Your task to perform on an android device: open app "Indeed Job Search" (install if not already installed), go to login, and select forgot password Image 0: 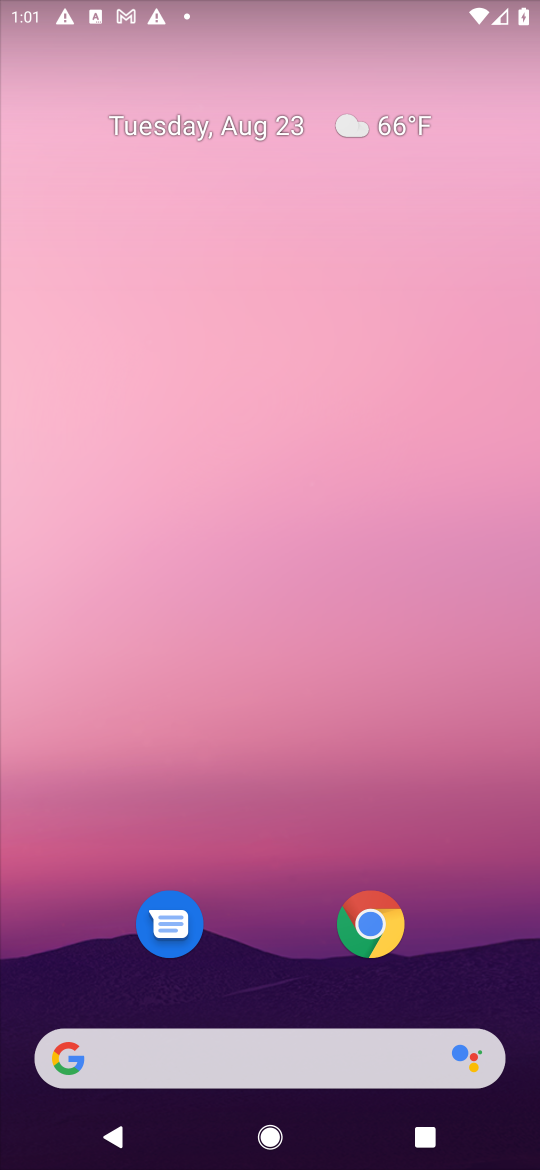
Step 0: press home button
Your task to perform on an android device: open app "Indeed Job Search" (install if not already installed), go to login, and select forgot password Image 1: 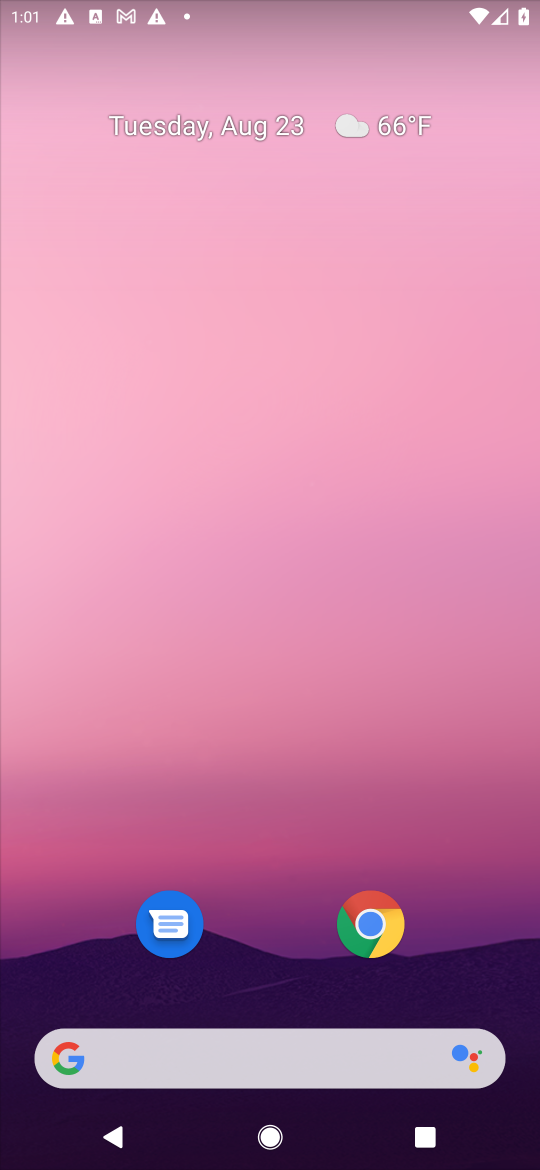
Step 1: drag from (472, 916) to (442, 165)
Your task to perform on an android device: open app "Indeed Job Search" (install if not already installed), go to login, and select forgot password Image 2: 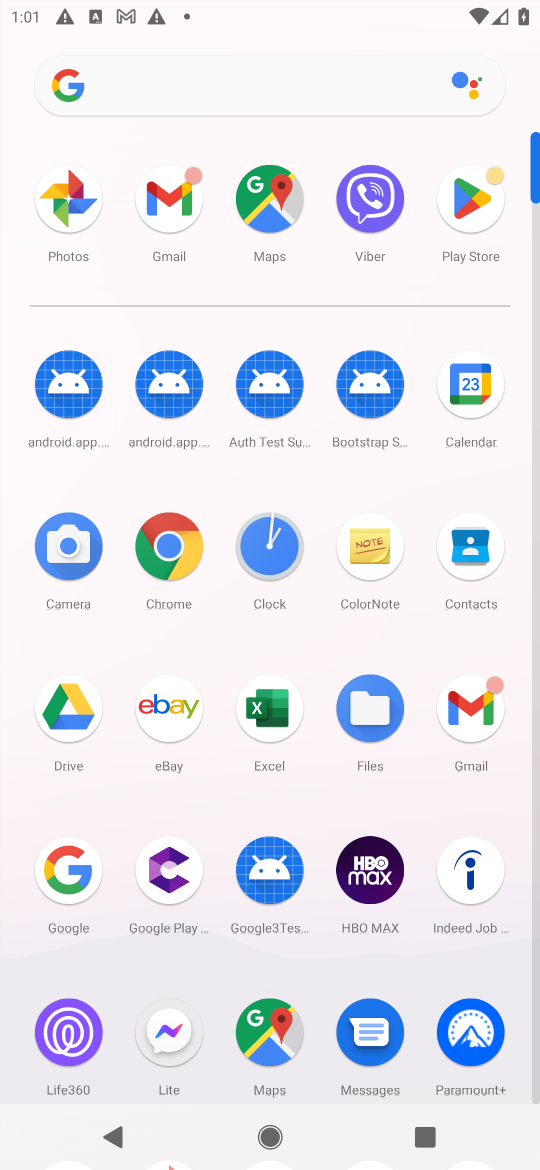
Step 2: click (468, 211)
Your task to perform on an android device: open app "Indeed Job Search" (install if not already installed), go to login, and select forgot password Image 3: 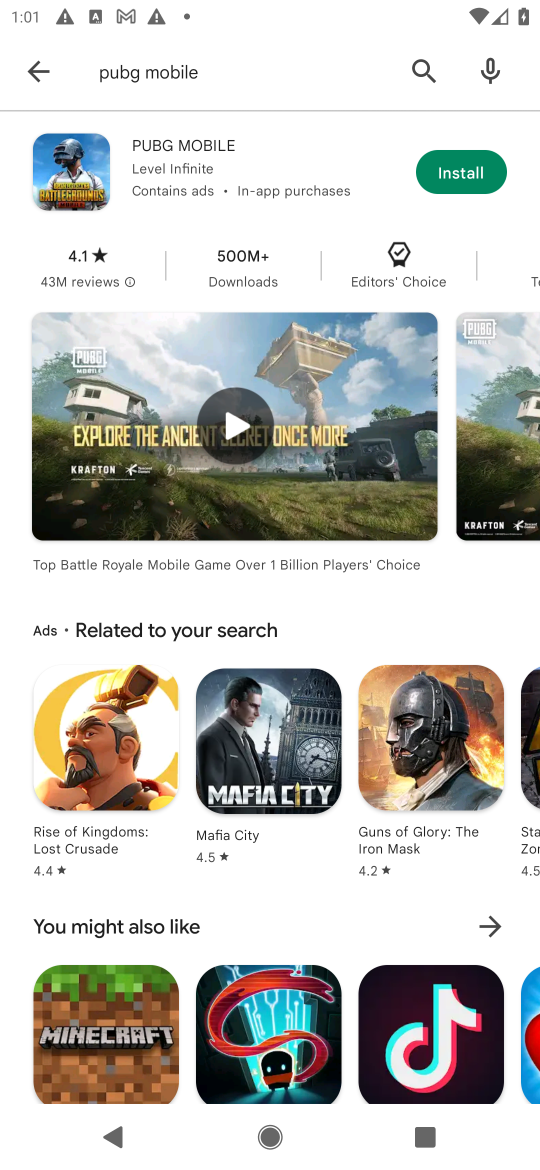
Step 3: press back button
Your task to perform on an android device: open app "Indeed Job Search" (install if not already installed), go to login, and select forgot password Image 4: 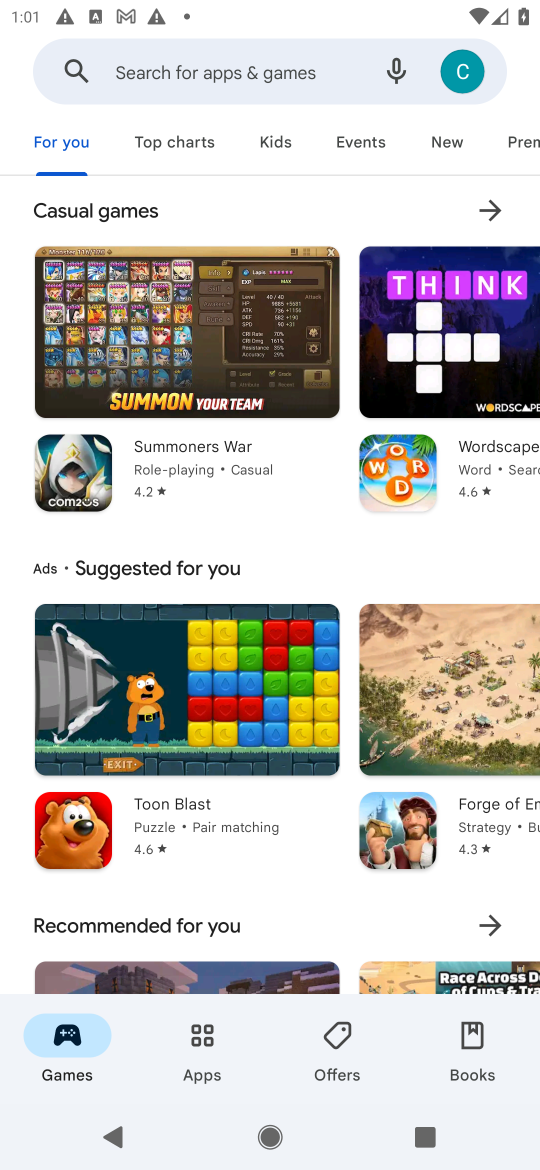
Step 4: click (208, 64)
Your task to perform on an android device: open app "Indeed Job Search" (install if not already installed), go to login, and select forgot password Image 5: 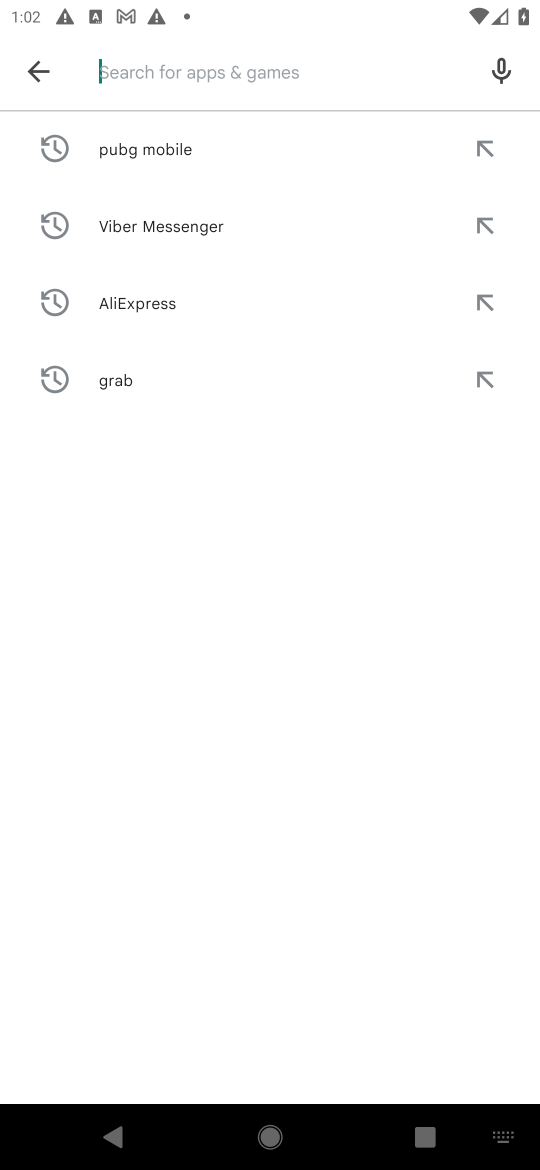
Step 5: type "Indeed Job Search"
Your task to perform on an android device: open app "Indeed Job Search" (install if not already installed), go to login, and select forgot password Image 6: 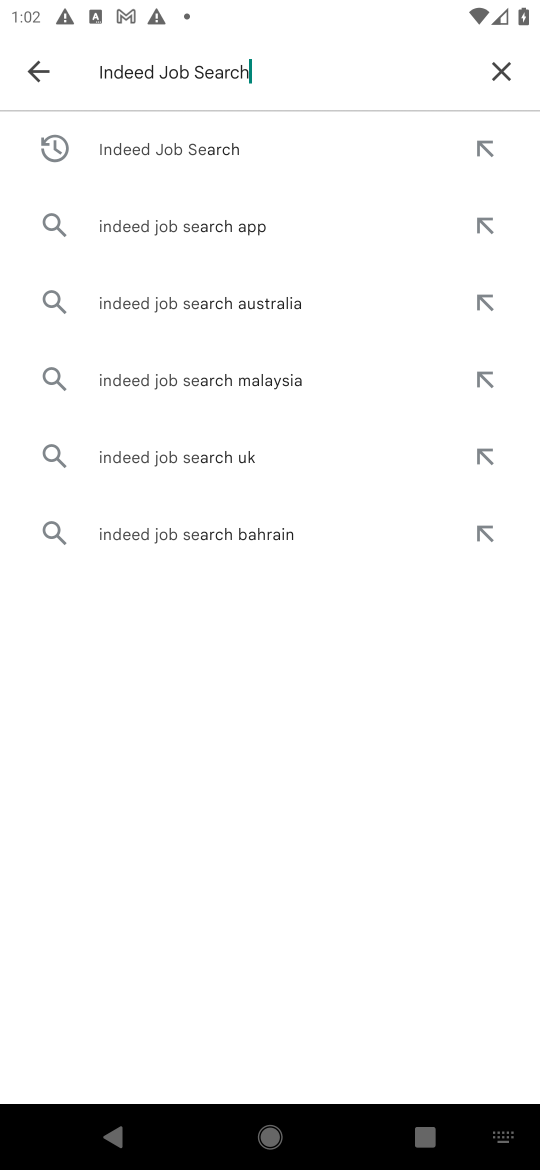
Step 6: press enter
Your task to perform on an android device: open app "Indeed Job Search" (install if not already installed), go to login, and select forgot password Image 7: 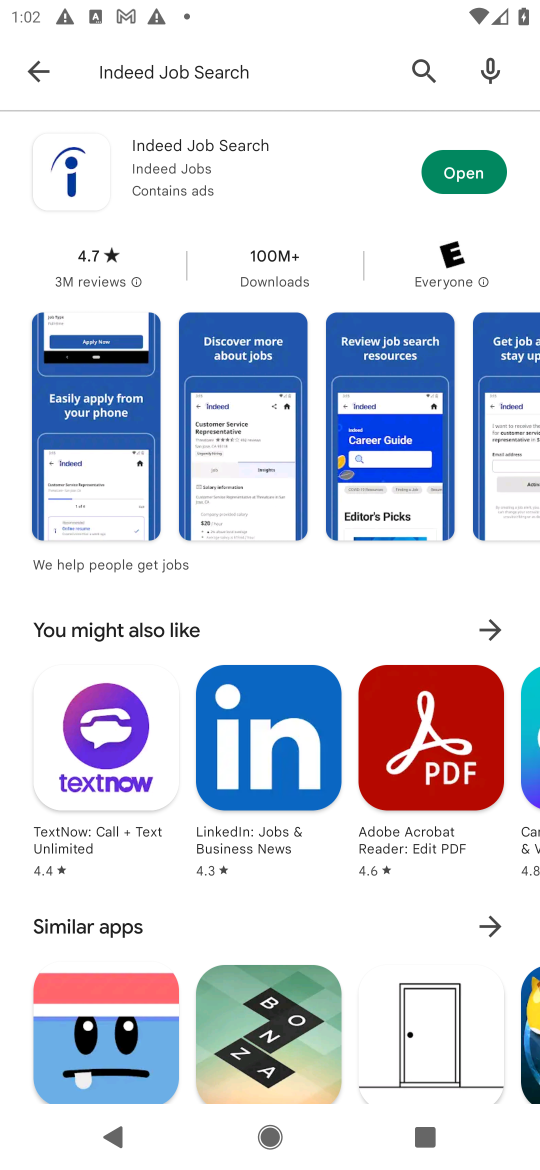
Step 7: click (451, 179)
Your task to perform on an android device: open app "Indeed Job Search" (install if not already installed), go to login, and select forgot password Image 8: 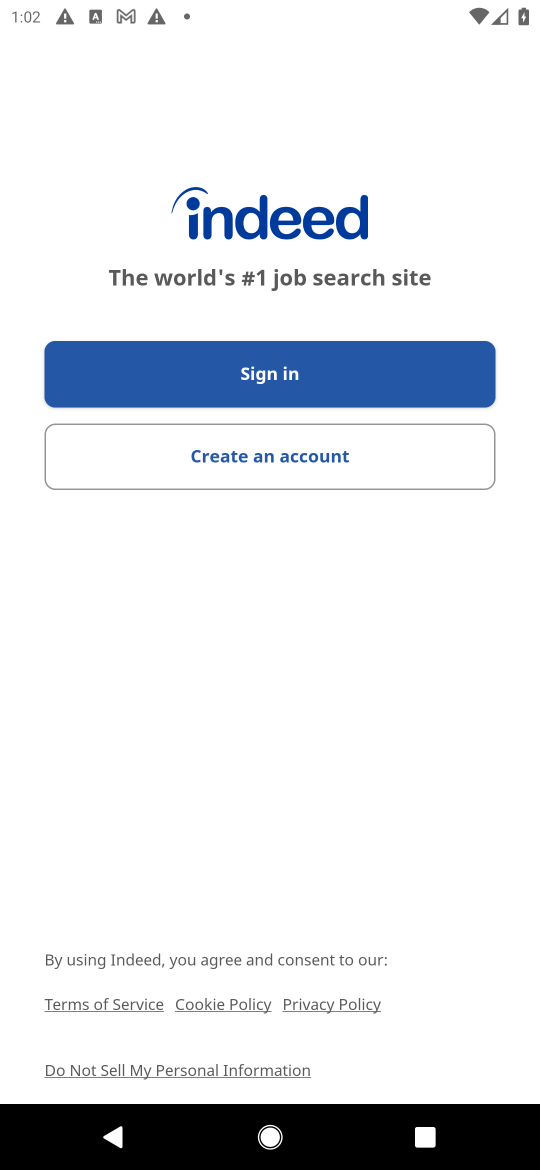
Step 8: click (323, 379)
Your task to perform on an android device: open app "Indeed Job Search" (install if not already installed), go to login, and select forgot password Image 9: 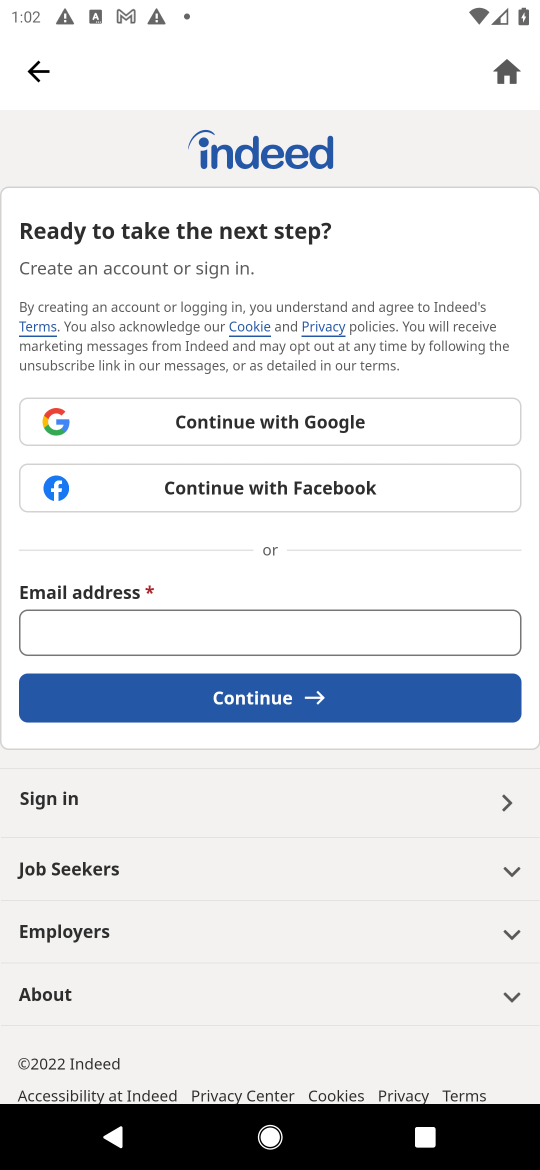
Step 9: task complete